Your task to perform on an android device: Open the phone app and click the voicemail tab. Image 0: 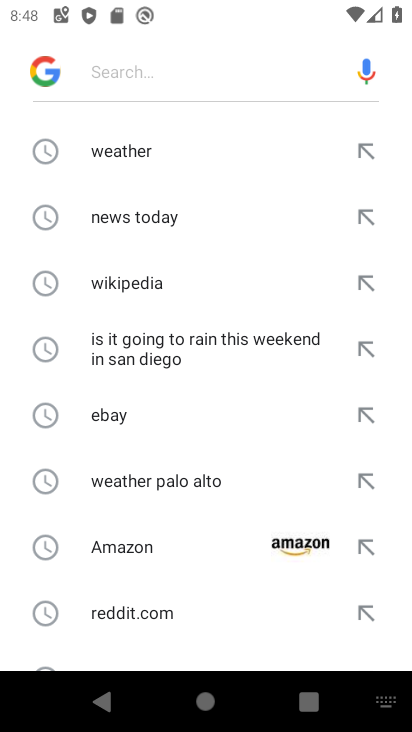
Step 0: press home button
Your task to perform on an android device: Open the phone app and click the voicemail tab. Image 1: 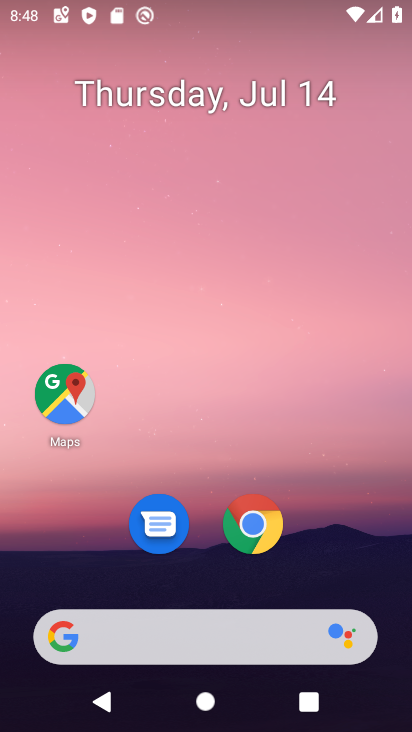
Step 1: drag from (354, 542) to (343, 54)
Your task to perform on an android device: Open the phone app and click the voicemail tab. Image 2: 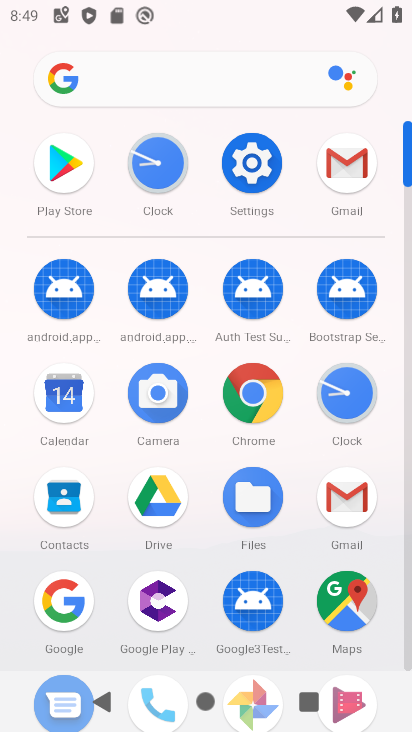
Step 2: drag from (291, 520) to (306, 331)
Your task to perform on an android device: Open the phone app and click the voicemail tab. Image 3: 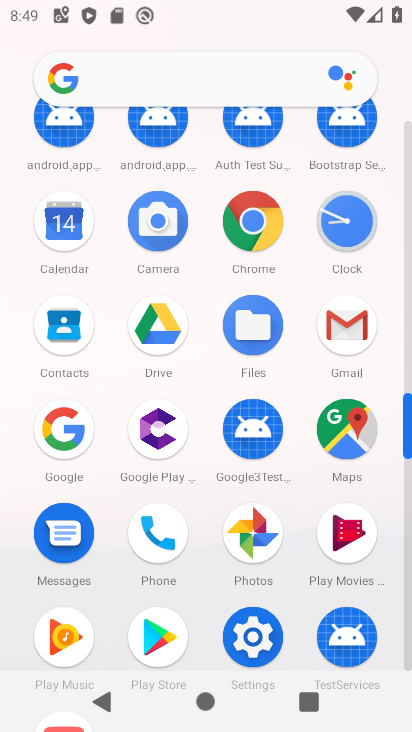
Step 3: click (167, 521)
Your task to perform on an android device: Open the phone app and click the voicemail tab. Image 4: 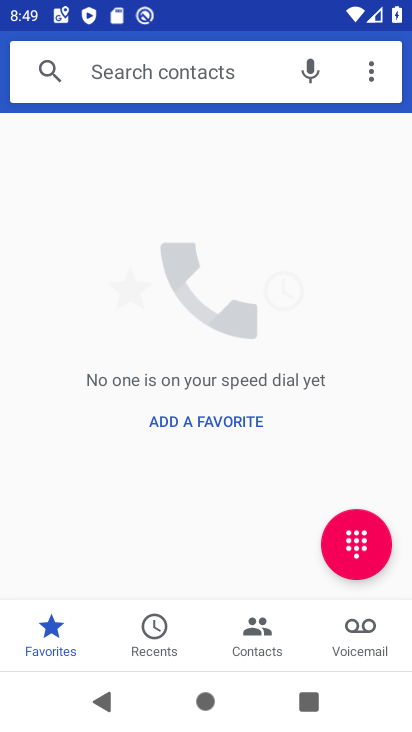
Step 4: click (349, 636)
Your task to perform on an android device: Open the phone app and click the voicemail tab. Image 5: 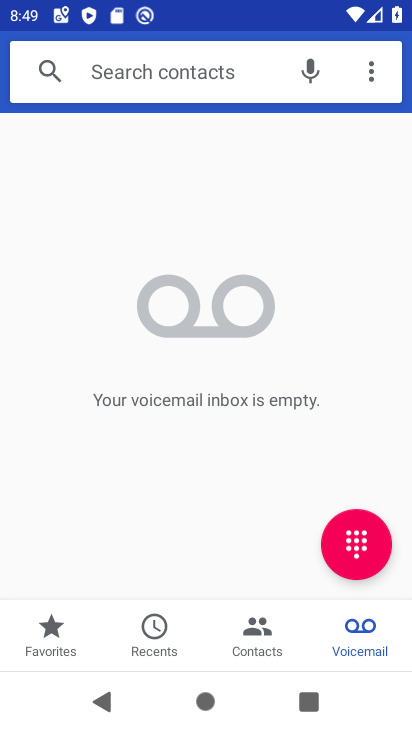
Step 5: task complete